Your task to perform on an android device: What's on my calendar today? Image 0: 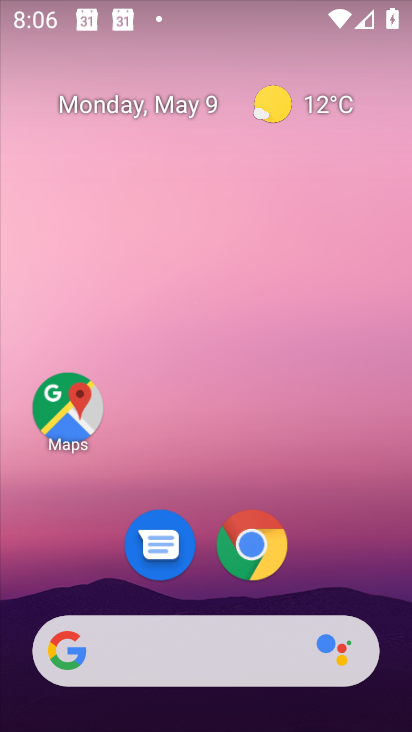
Step 0: drag from (211, 712) to (201, 155)
Your task to perform on an android device: What's on my calendar today? Image 1: 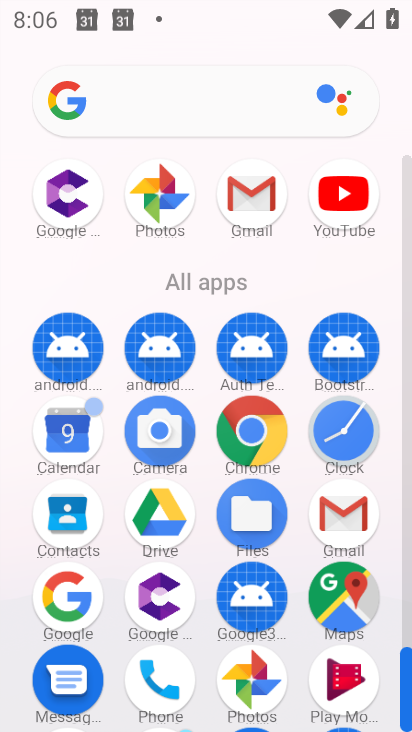
Step 1: click (61, 429)
Your task to perform on an android device: What's on my calendar today? Image 2: 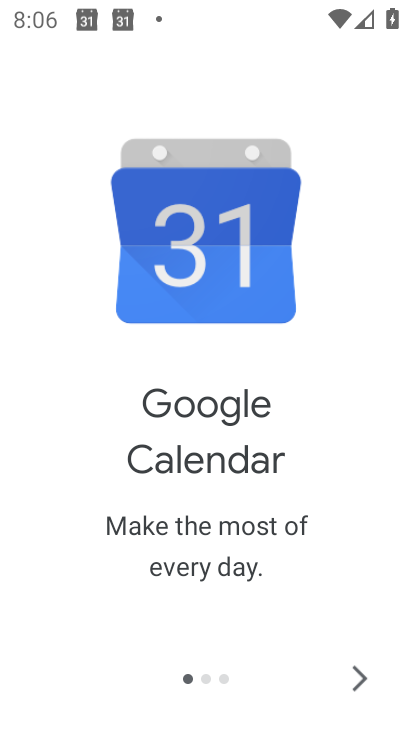
Step 2: click (356, 669)
Your task to perform on an android device: What's on my calendar today? Image 3: 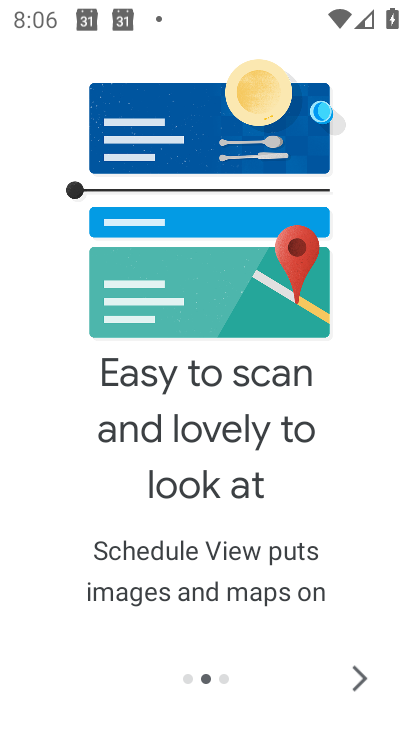
Step 3: click (356, 669)
Your task to perform on an android device: What's on my calendar today? Image 4: 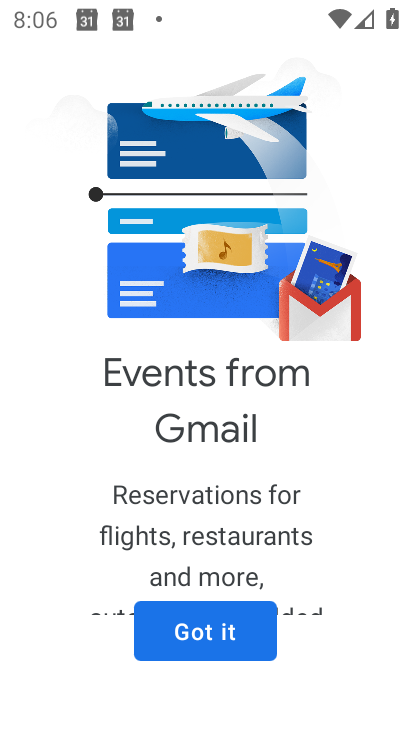
Step 4: click (197, 624)
Your task to perform on an android device: What's on my calendar today? Image 5: 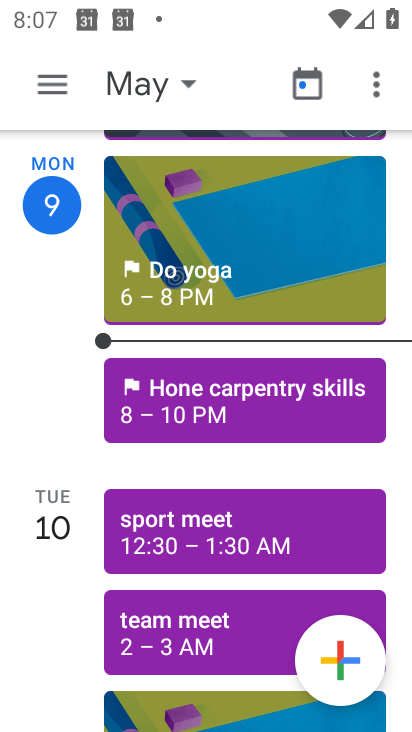
Step 5: click (130, 73)
Your task to perform on an android device: What's on my calendar today? Image 6: 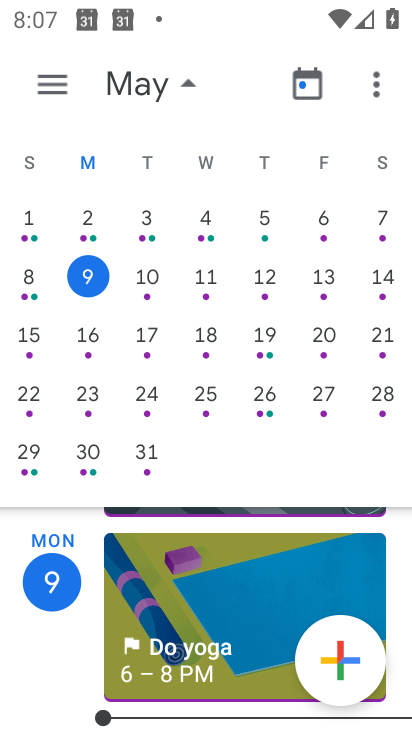
Step 6: task complete